Your task to perform on an android device: Open calendar and show me the fourth week of next month Image 0: 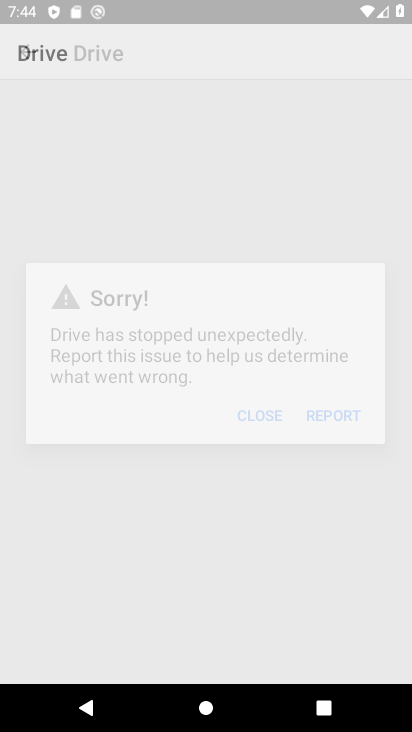
Step 0: click (224, 537)
Your task to perform on an android device: Open calendar and show me the fourth week of next month Image 1: 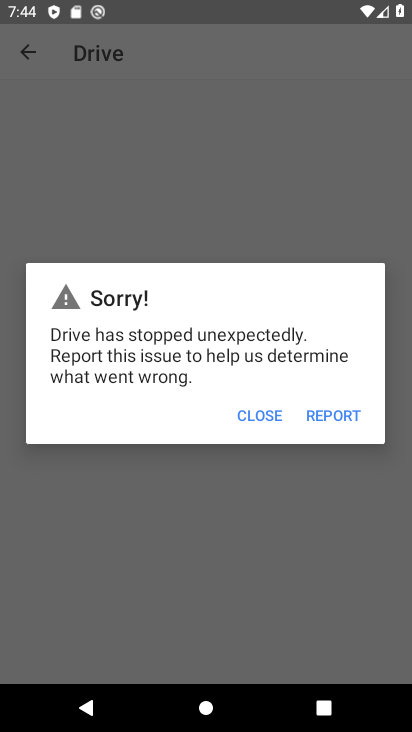
Step 1: press home button
Your task to perform on an android device: Open calendar and show me the fourth week of next month Image 2: 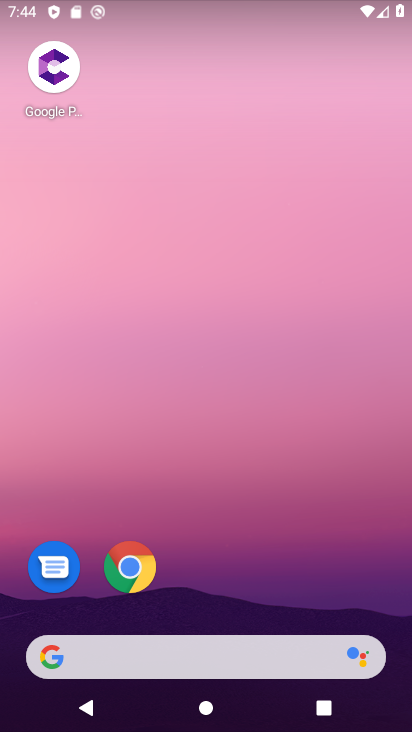
Step 2: drag from (196, 620) to (175, 46)
Your task to perform on an android device: Open calendar and show me the fourth week of next month Image 3: 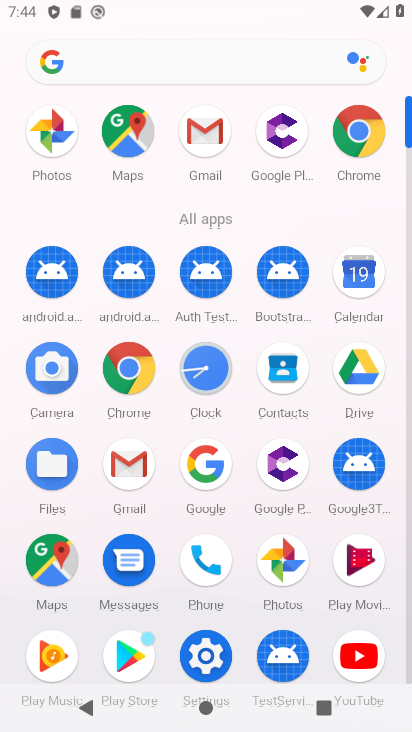
Step 3: click (354, 273)
Your task to perform on an android device: Open calendar and show me the fourth week of next month Image 4: 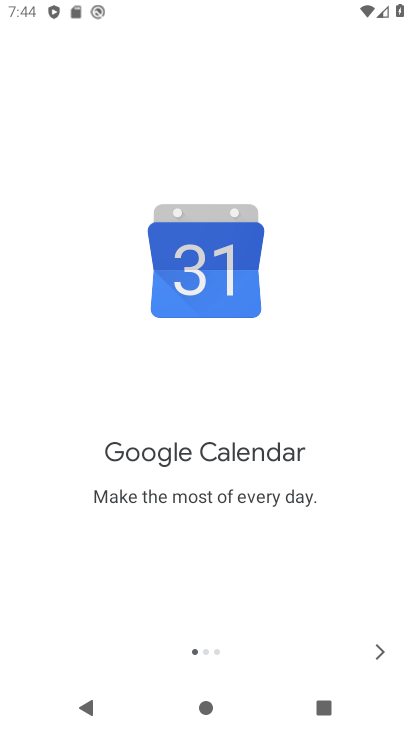
Step 4: click (387, 654)
Your task to perform on an android device: Open calendar and show me the fourth week of next month Image 5: 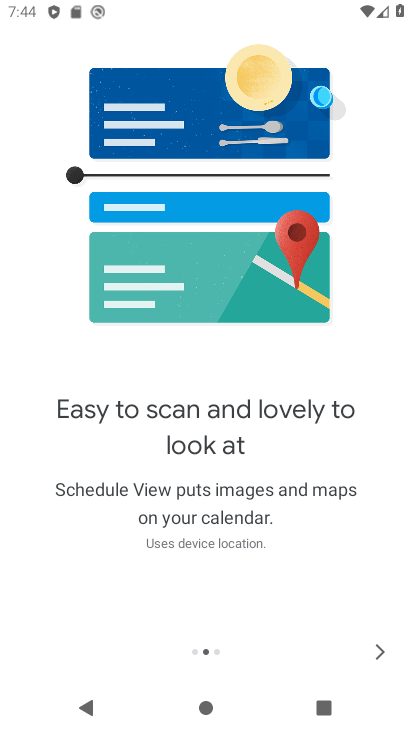
Step 5: click (387, 654)
Your task to perform on an android device: Open calendar and show me the fourth week of next month Image 6: 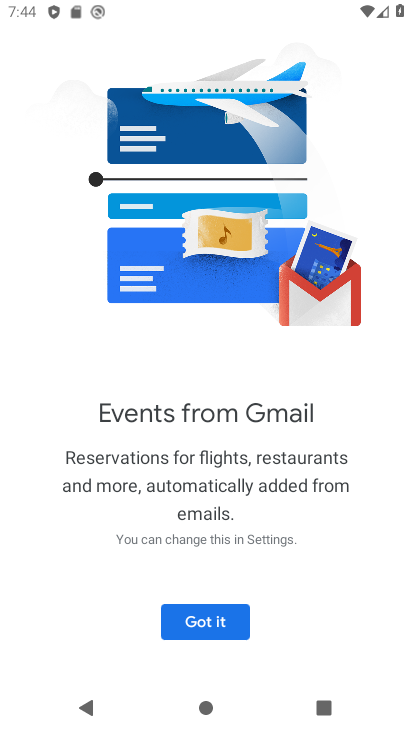
Step 6: click (234, 612)
Your task to perform on an android device: Open calendar and show me the fourth week of next month Image 7: 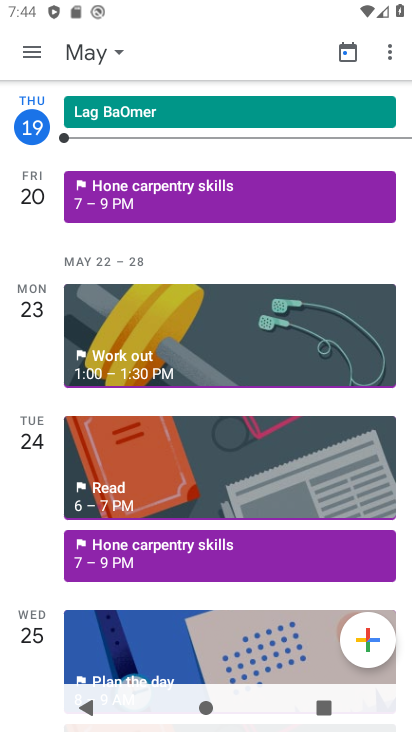
Step 7: click (28, 50)
Your task to perform on an android device: Open calendar and show me the fourth week of next month Image 8: 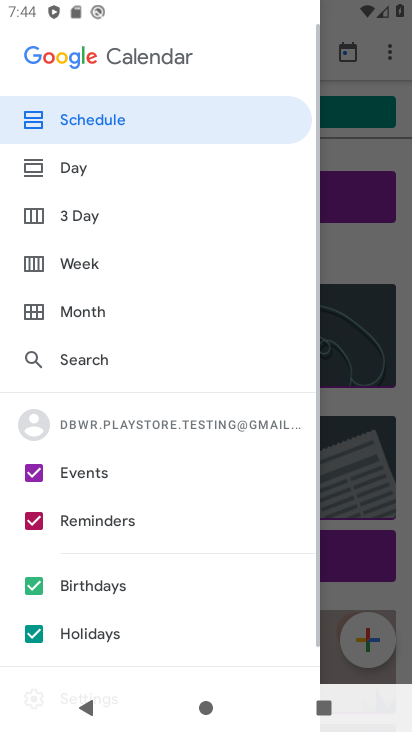
Step 8: click (112, 260)
Your task to perform on an android device: Open calendar and show me the fourth week of next month Image 9: 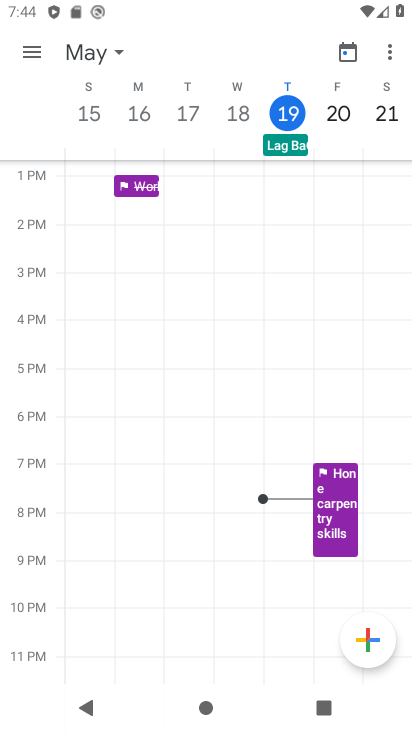
Step 9: task complete